Your task to perform on an android device: Open calendar and show me the fourth week of next month Image 0: 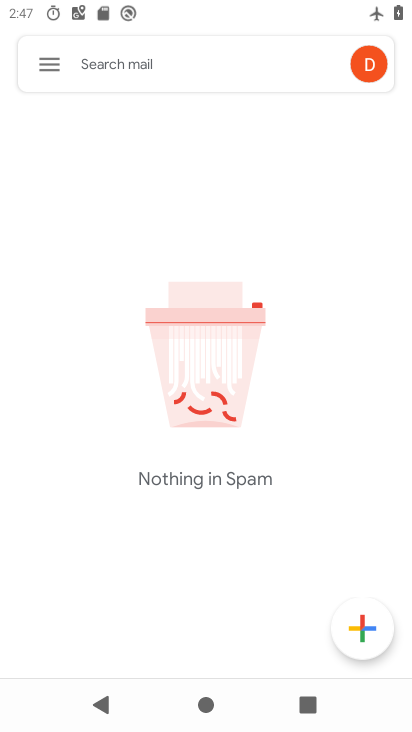
Step 0: press home button
Your task to perform on an android device: Open calendar and show me the fourth week of next month Image 1: 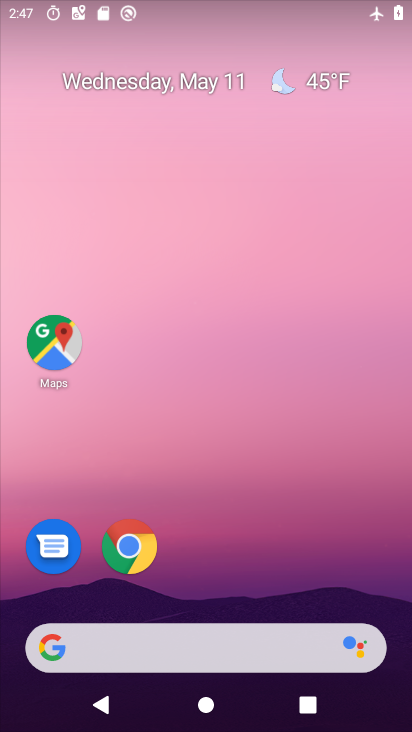
Step 1: drag from (260, 604) to (298, 12)
Your task to perform on an android device: Open calendar and show me the fourth week of next month Image 2: 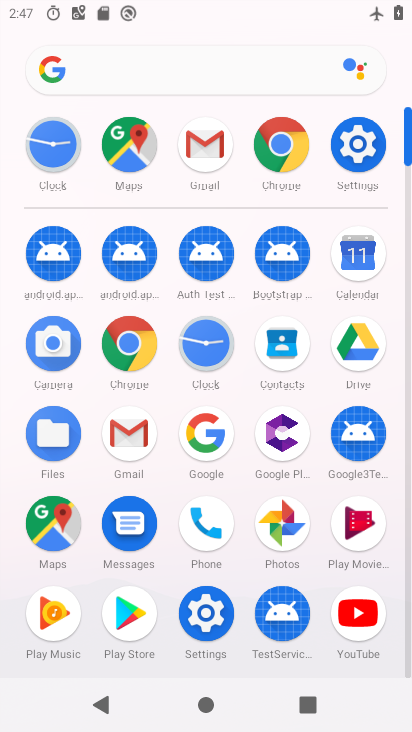
Step 2: click (372, 267)
Your task to perform on an android device: Open calendar and show me the fourth week of next month Image 3: 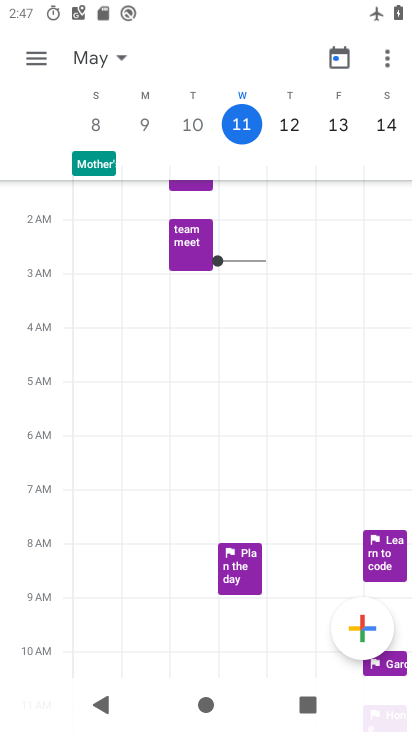
Step 3: task complete